Your task to perform on an android device: turn off translation in the chrome app Image 0: 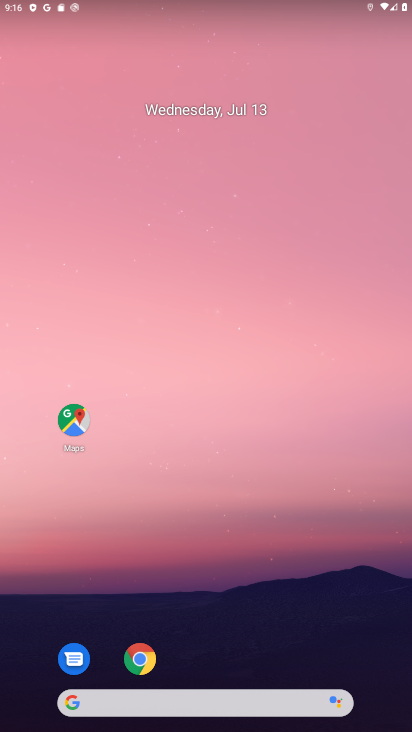
Step 0: press home button
Your task to perform on an android device: turn off translation in the chrome app Image 1: 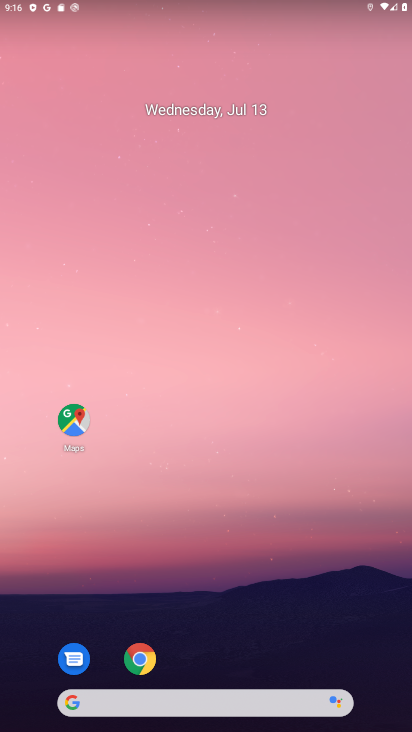
Step 1: click (140, 657)
Your task to perform on an android device: turn off translation in the chrome app Image 2: 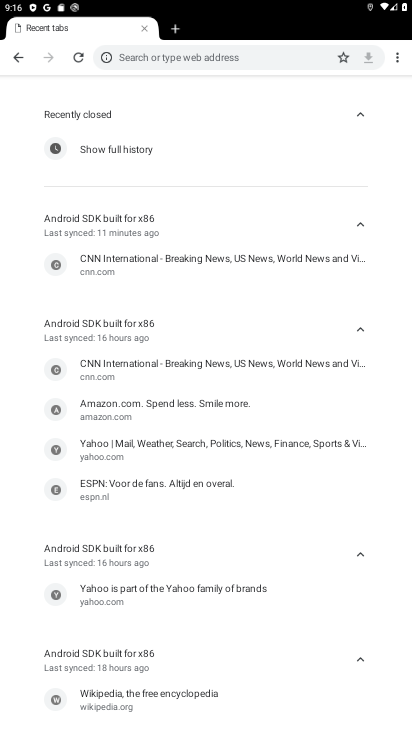
Step 2: click (398, 54)
Your task to perform on an android device: turn off translation in the chrome app Image 3: 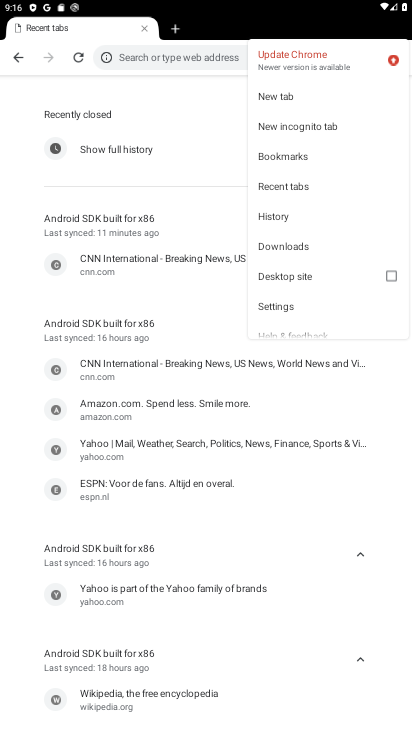
Step 3: click (298, 302)
Your task to perform on an android device: turn off translation in the chrome app Image 4: 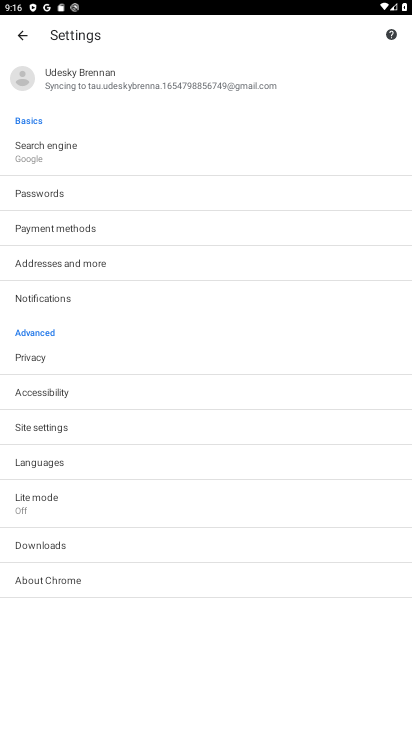
Step 4: click (70, 460)
Your task to perform on an android device: turn off translation in the chrome app Image 5: 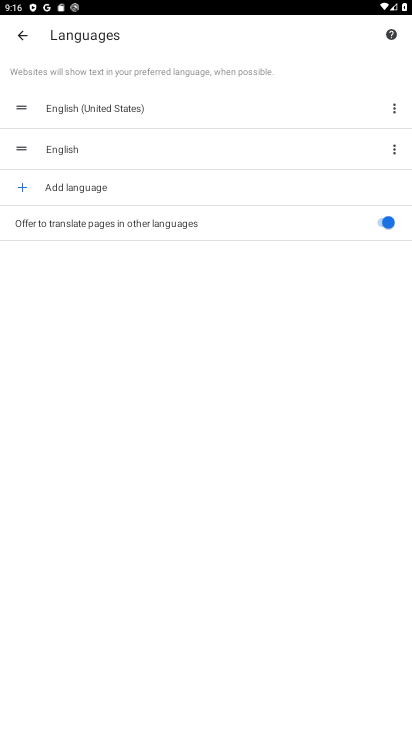
Step 5: click (379, 223)
Your task to perform on an android device: turn off translation in the chrome app Image 6: 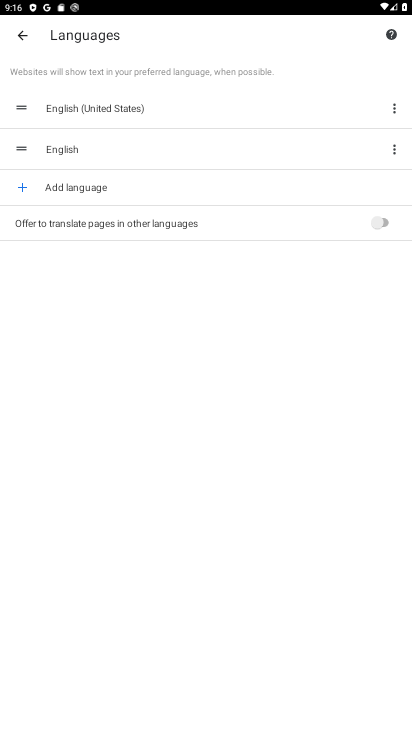
Step 6: task complete